Your task to perform on an android device: turn on data saver in the chrome app Image 0: 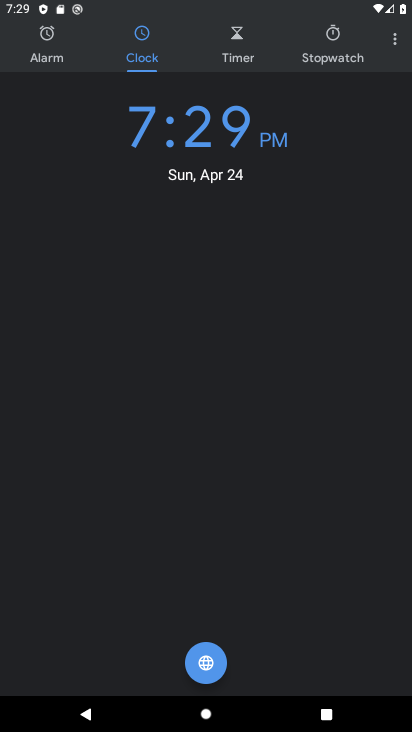
Step 0: press home button
Your task to perform on an android device: turn on data saver in the chrome app Image 1: 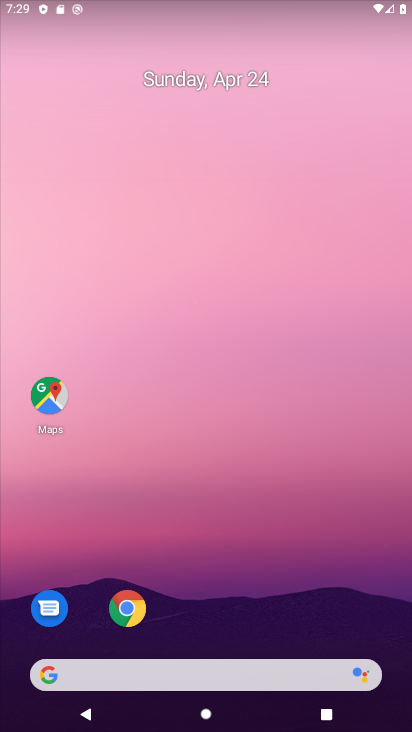
Step 1: click (131, 601)
Your task to perform on an android device: turn on data saver in the chrome app Image 2: 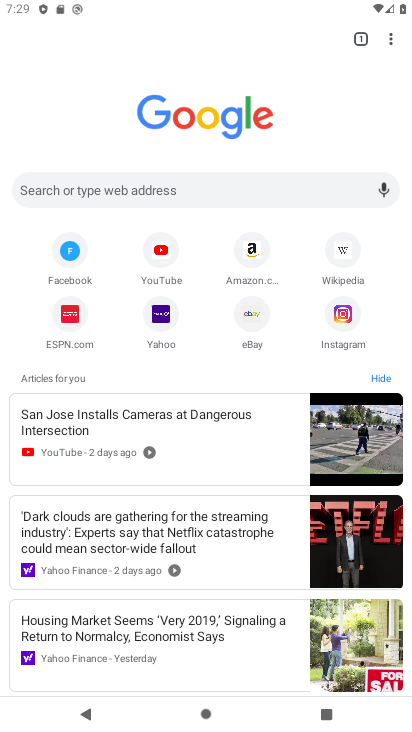
Step 2: click (389, 34)
Your task to perform on an android device: turn on data saver in the chrome app Image 3: 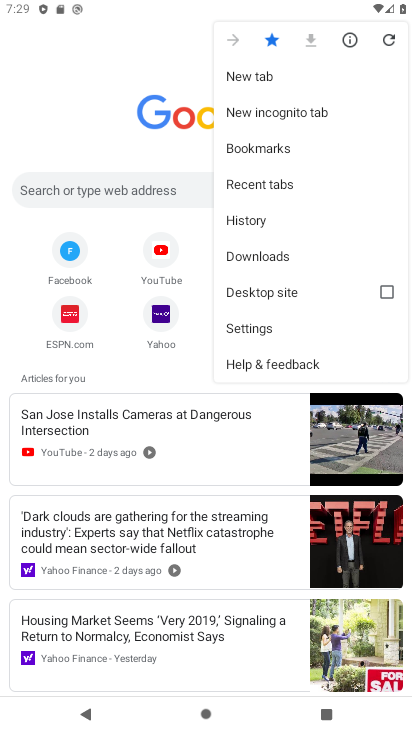
Step 3: click (271, 328)
Your task to perform on an android device: turn on data saver in the chrome app Image 4: 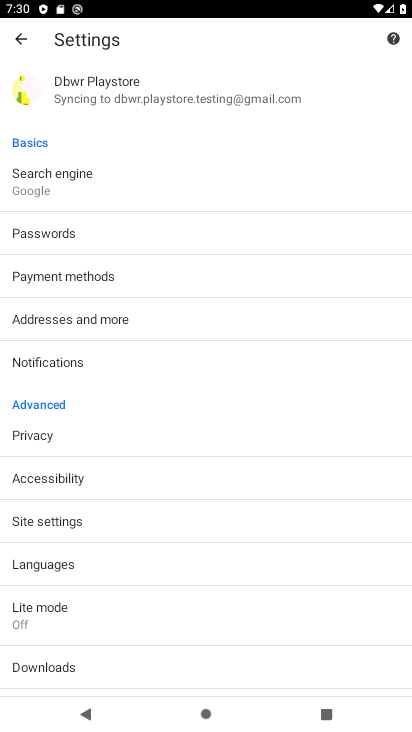
Step 4: click (97, 614)
Your task to perform on an android device: turn on data saver in the chrome app Image 5: 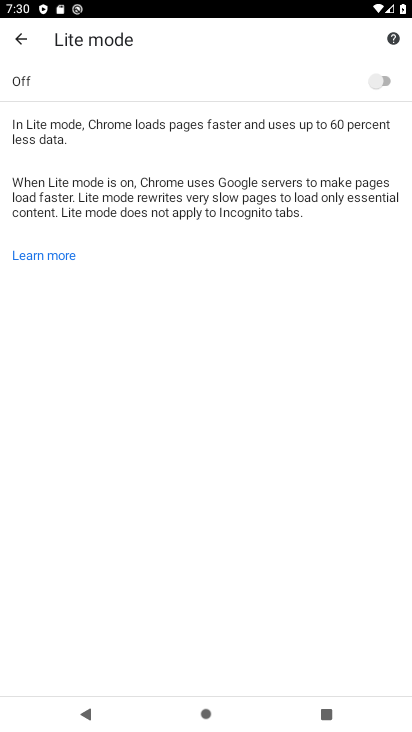
Step 5: click (382, 74)
Your task to perform on an android device: turn on data saver in the chrome app Image 6: 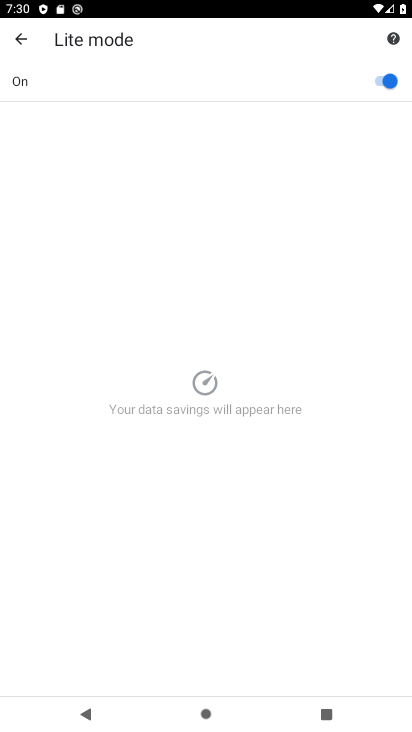
Step 6: task complete